Your task to perform on an android device: Open the calendar and show me this week's events? Image 0: 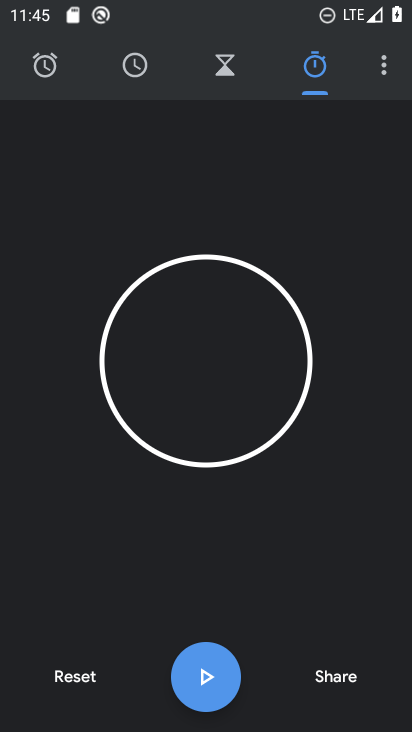
Step 0: press home button
Your task to perform on an android device: Open the calendar and show me this week's events? Image 1: 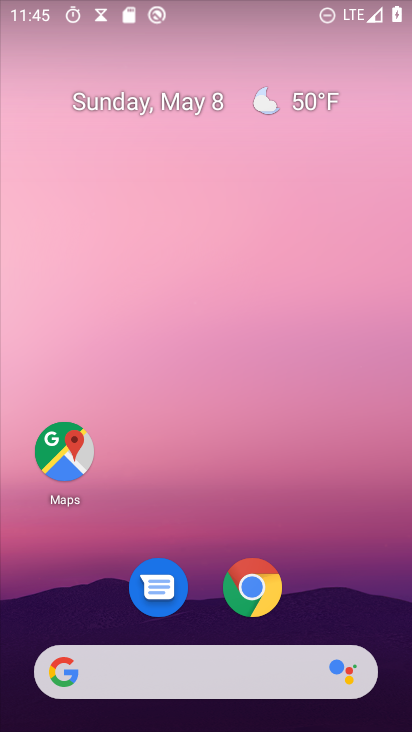
Step 1: drag from (205, 511) to (121, 191)
Your task to perform on an android device: Open the calendar and show me this week's events? Image 2: 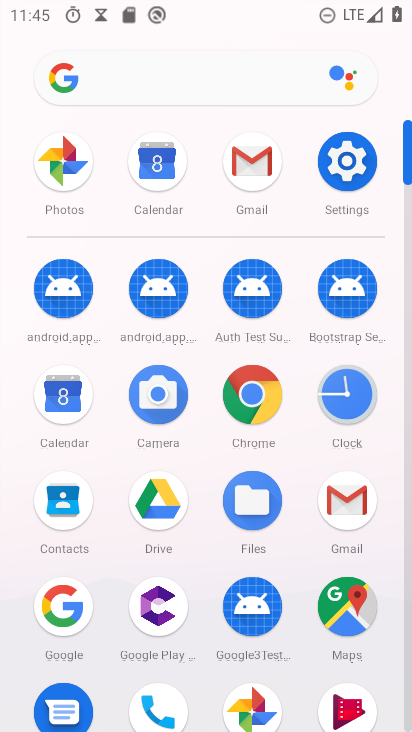
Step 2: click (146, 168)
Your task to perform on an android device: Open the calendar and show me this week's events? Image 3: 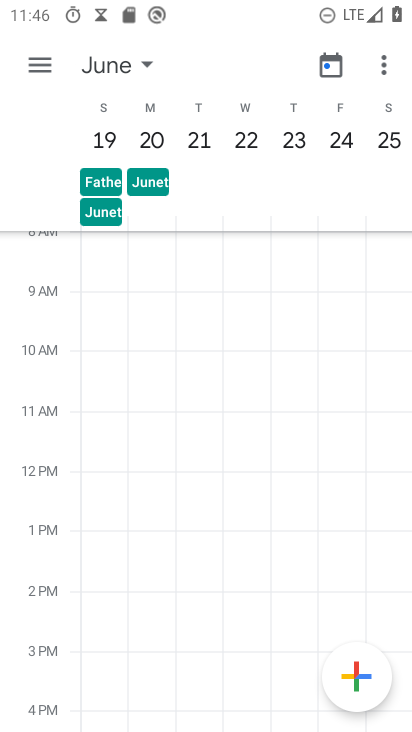
Step 3: click (122, 64)
Your task to perform on an android device: Open the calendar and show me this week's events? Image 4: 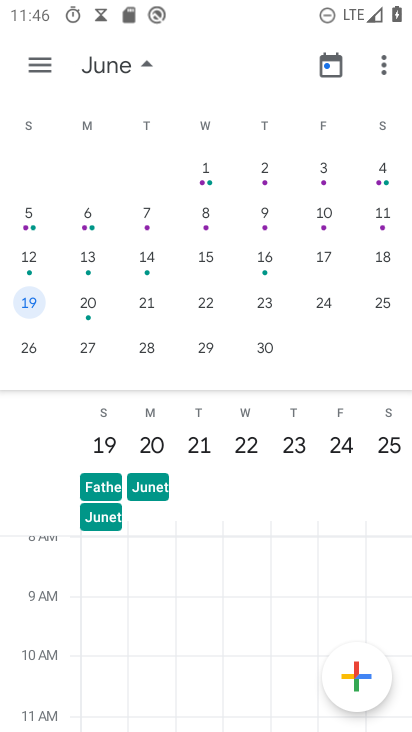
Step 4: drag from (39, 286) to (355, 283)
Your task to perform on an android device: Open the calendar and show me this week's events? Image 5: 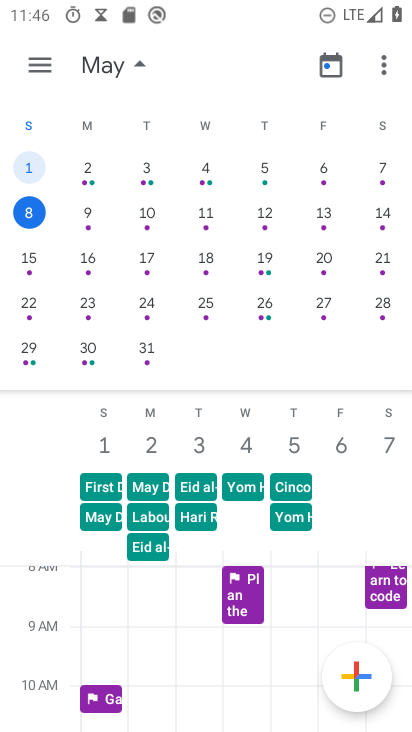
Step 5: click (385, 217)
Your task to perform on an android device: Open the calendar and show me this week's events? Image 6: 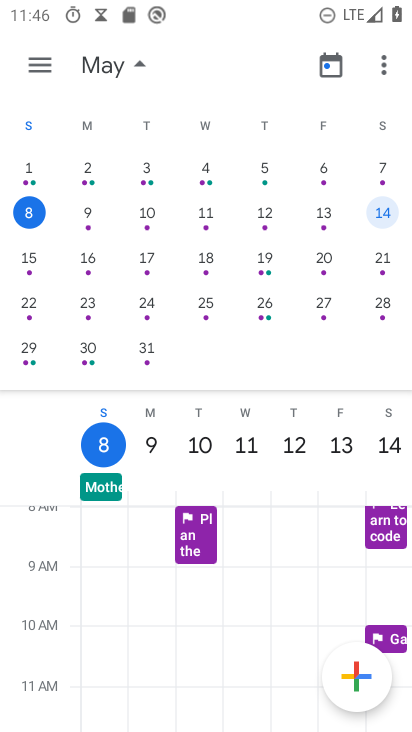
Step 6: click (385, 217)
Your task to perform on an android device: Open the calendar and show me this week's events? Image 7: 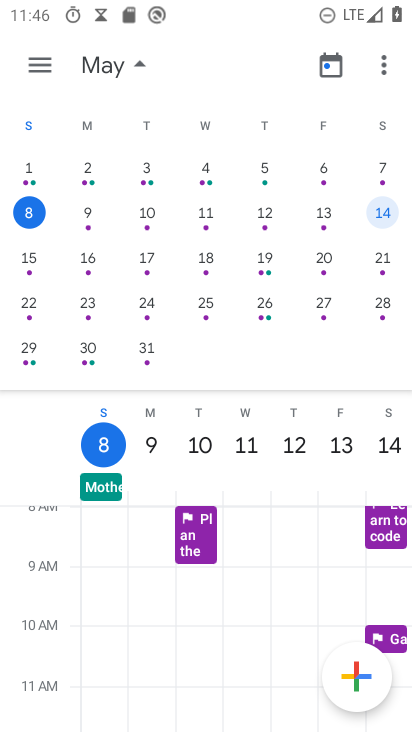
Step 7: click (40, 65)
Your task to perform on an android device: Open the calendar and show me this week's events? Image 8: 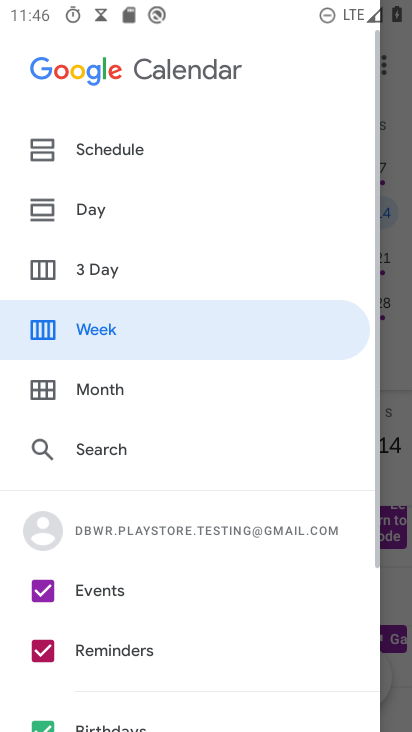
Step 8: click (80, 148)
Your task to perform on an android device: Open the calendar and show me this week's events? Image 9: 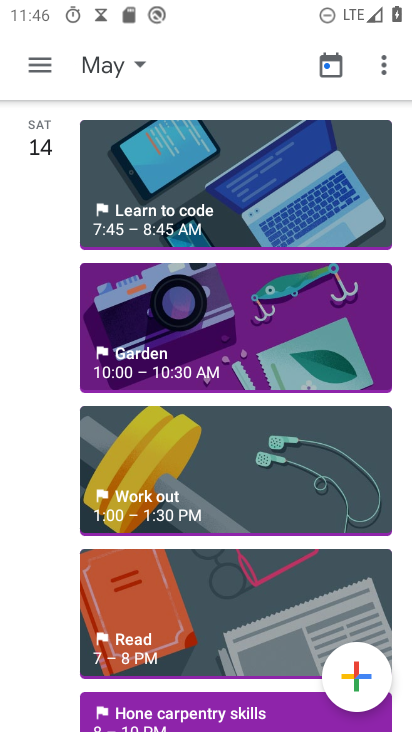
Step 9: task complete